Your task to perform on an android device: toggle data saver in the chrome app Image 0: 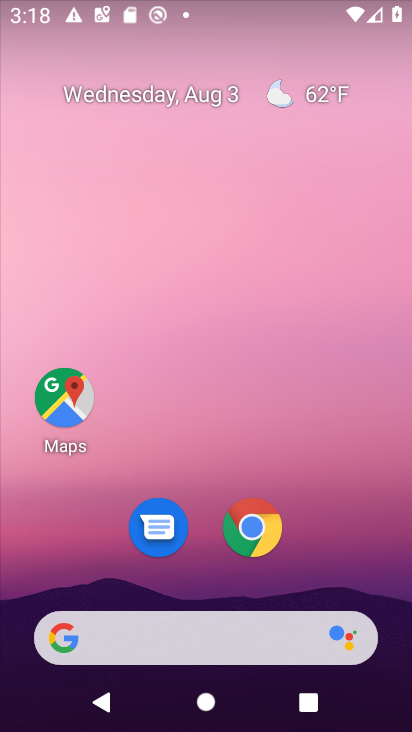
Step 0: drag from (332, 553) to (290, 133)
Your task to perform on an android device: toggle data saver in the chrome app Image 1: 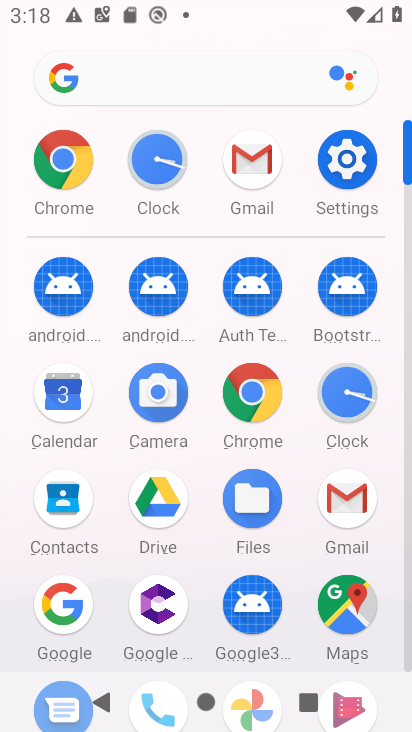
Step 1: click (252, 396)
Your task to perform on an android device: toggle data saver in the chrome app Image 2: 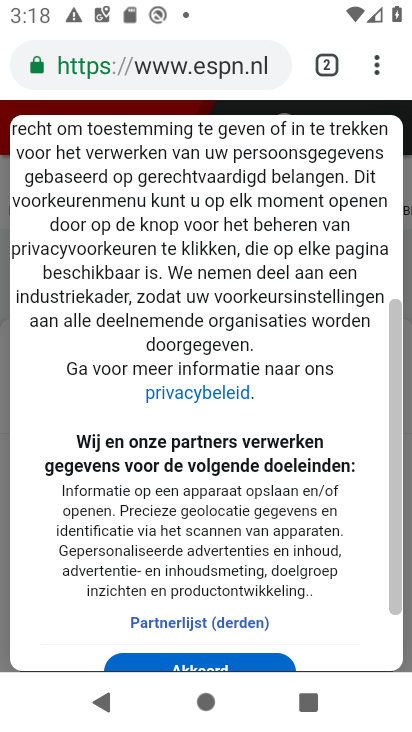
Step 2: drag from (384, 62) to (203, 585)
Your task to perform on an android device: toggle data saver in the chrome app Image 3: 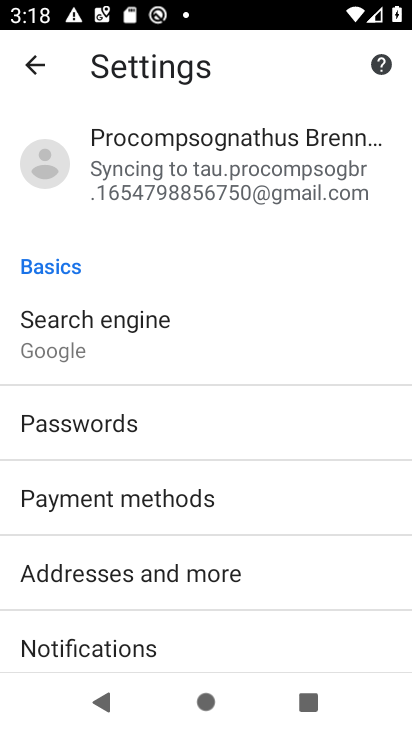
Step 3: drag from (312, 592) to (343, 103)
Your task to perform on an android device: toggle data saver in the chrome app Image 4: 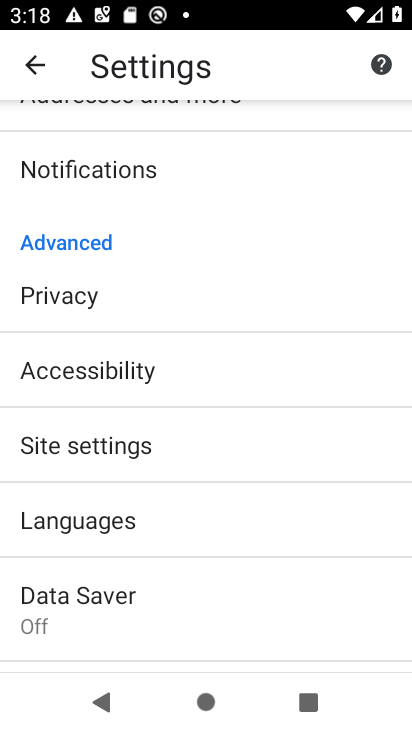
Step 4: click (190, 608)
Your task to perform on an android device: toggle data saver in the chrome app Image 5: 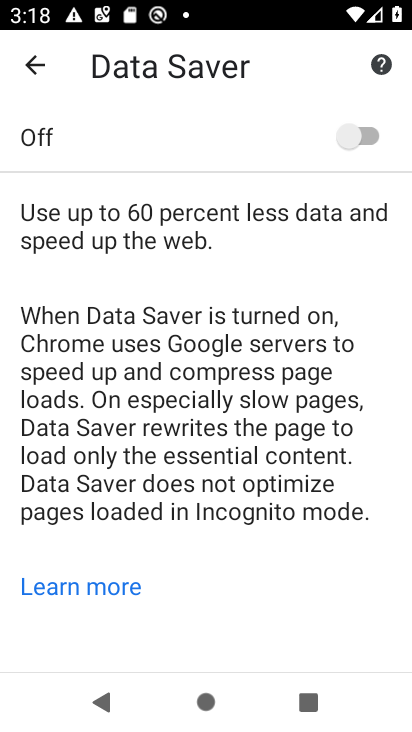
Step 5: click (372, 126)
Your task to perform on an android device: toggle data saver in the chrome app Image 6: 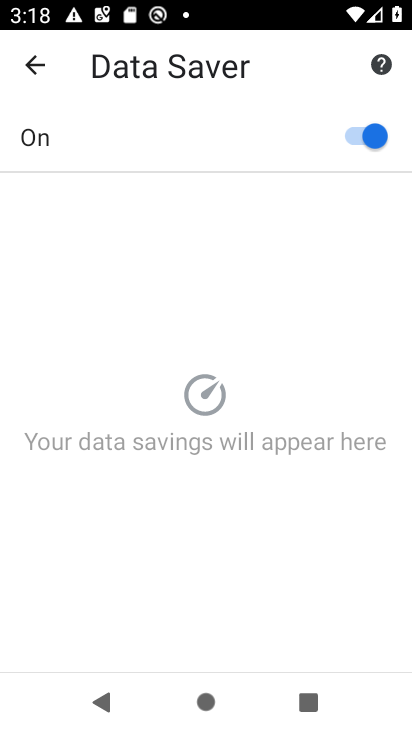
Step 6: task complete